Your task to perform on an android device: check the backup settings in the google photos Image 0: 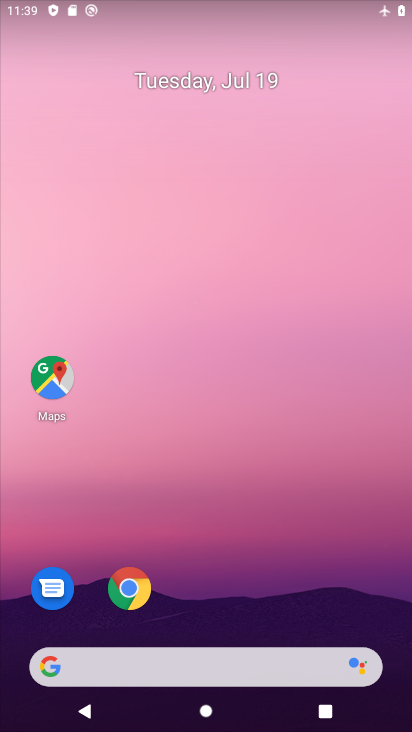
Step 0: drag from (188, 545) to (190, 317)
Your task to perform on an android device: check the backup settings in the google photos Image 1: 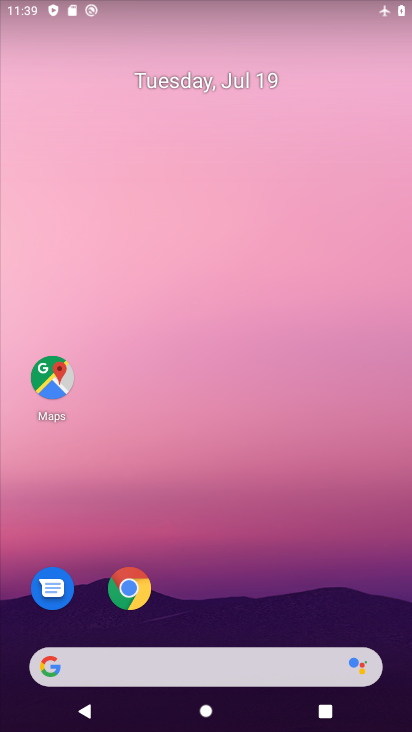
Step 1: drag from (237, 613) to (232, 236)
Your task to perform on an android device: check the backup settings in the google photos Image 2: 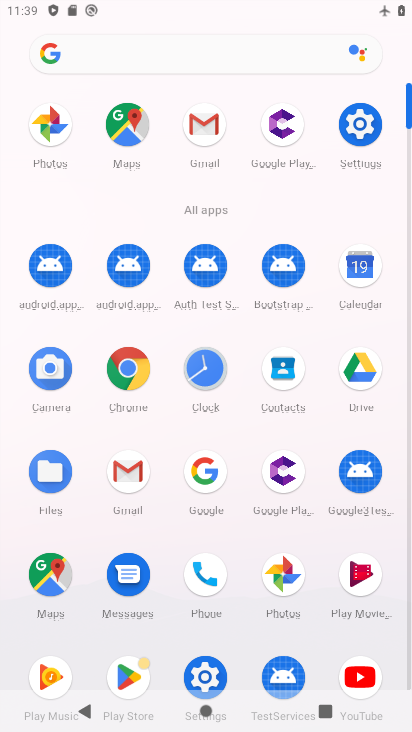
Step 2: click (274, 562)
Your task to perform on an android device: check the backup settings in the google photos Image 3: 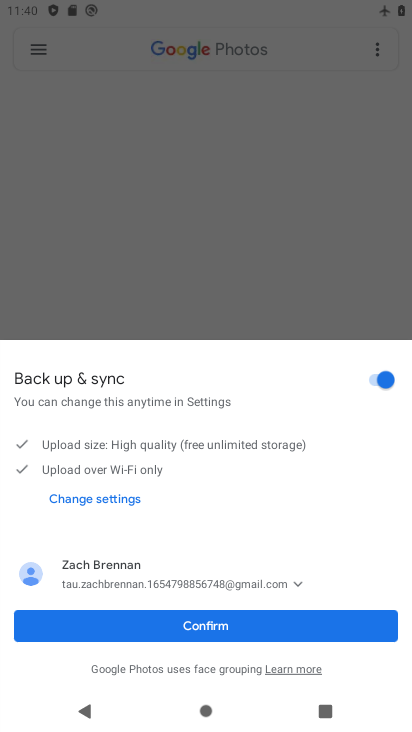
Step 3: click (35, 41)
Your task to perform on an android device: check the backup settings in the google photos Image 4: 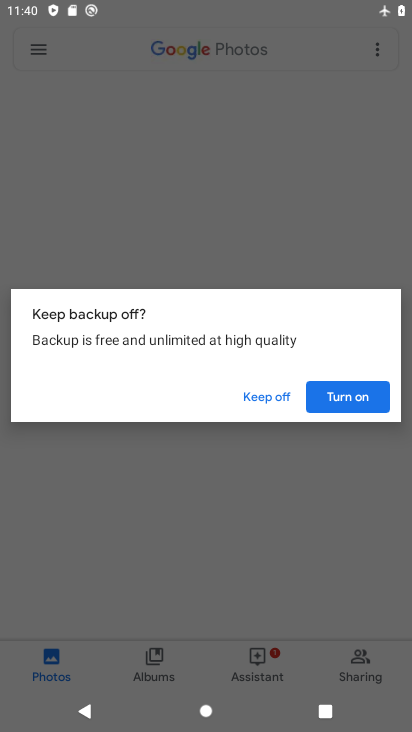
Step 4: click (253, 396)
Your task to perform on an android device: check the backup settings in the google photos Image 5: 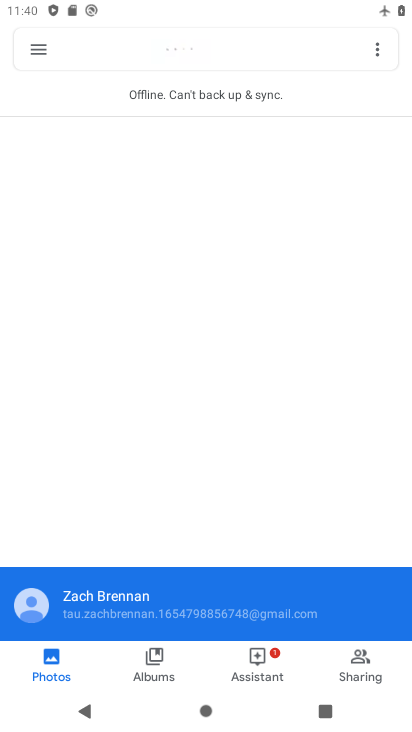
Step 5: click (29, 44)
Your task to perform on an android device: check the backup settings in the google photos Image 6: 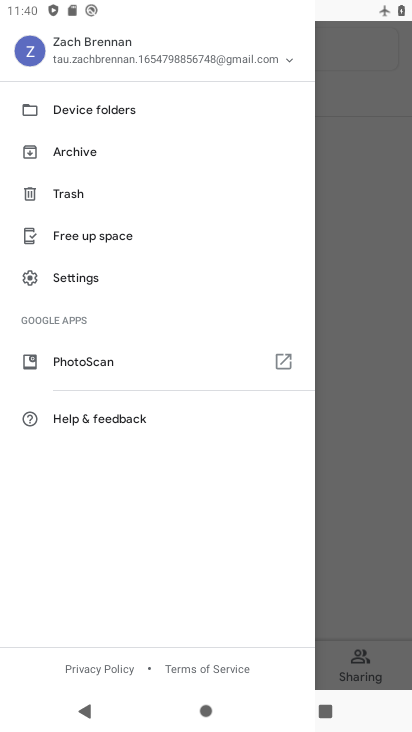
Step 6: click (79, 290)
Your task to perform on an android device: check the backup settings in the google photos Image 7: 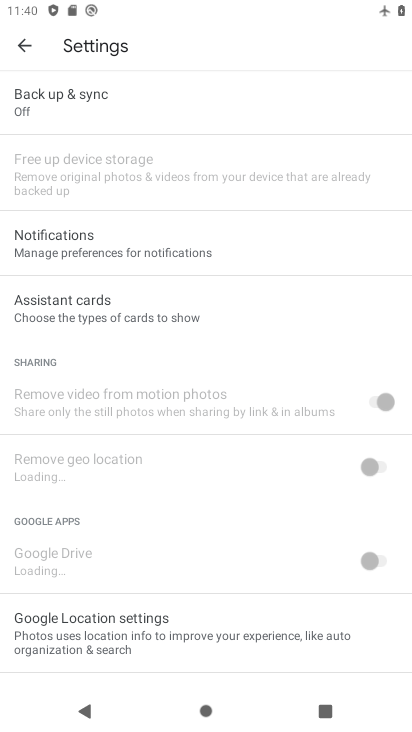
Step 7: click (73, 103)
Your task to perform on an android device: check the backup settings in the google photos Image 8: 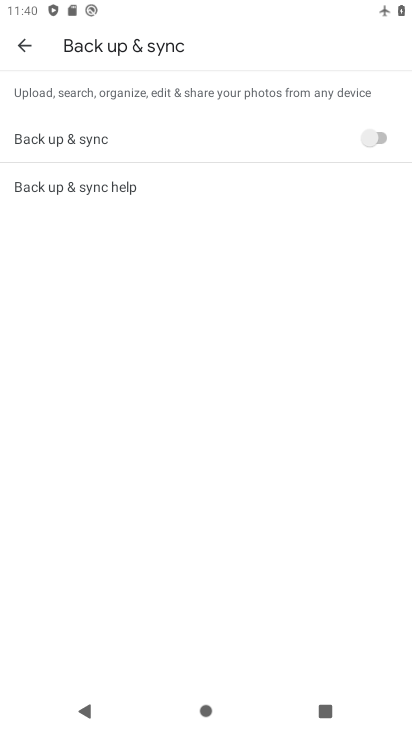
Step 8: task complete